Your task to perform on an android device: Open maps Image 0: 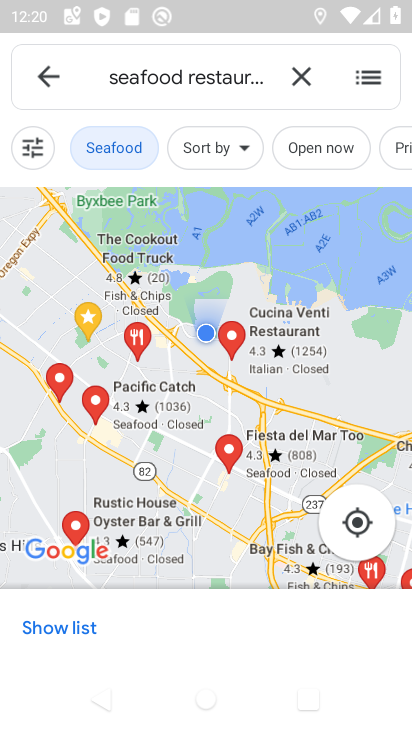
Step 0: press home button
Your task to perform on an android device: Open maps Image 1: 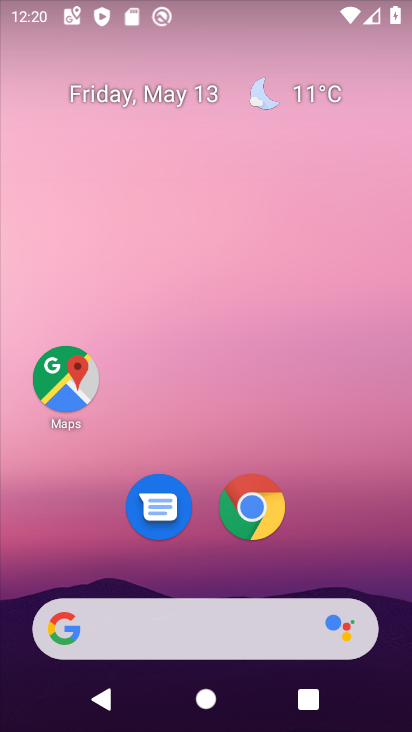
Step 1: click (69, 394)
Your task to perform on an android device: Open maps Image 2: 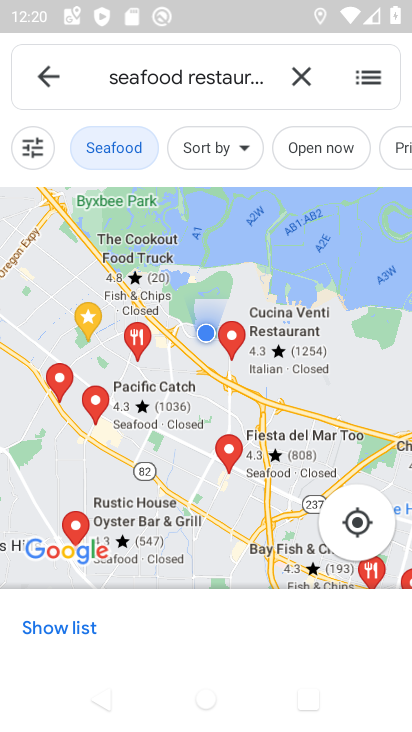
Step 2: task complete